Your task to perform on an android device: Open calendar and show me the third week of next month Image 0: 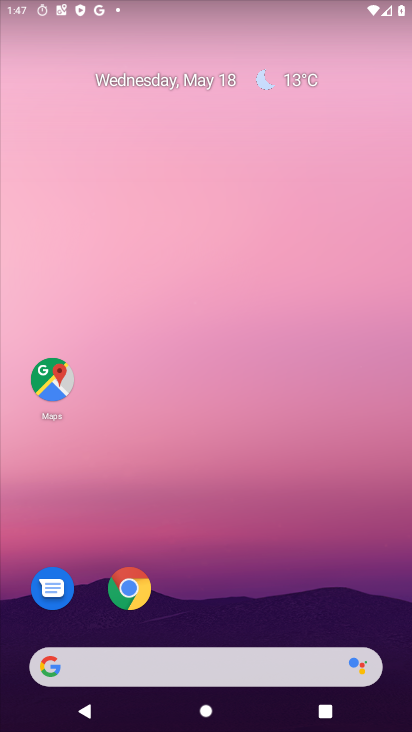
Step 0: drag from (209, 583) to (280, 144)
Your task to perform on an android device: Open calendar and show me the third week of next month Image 1: 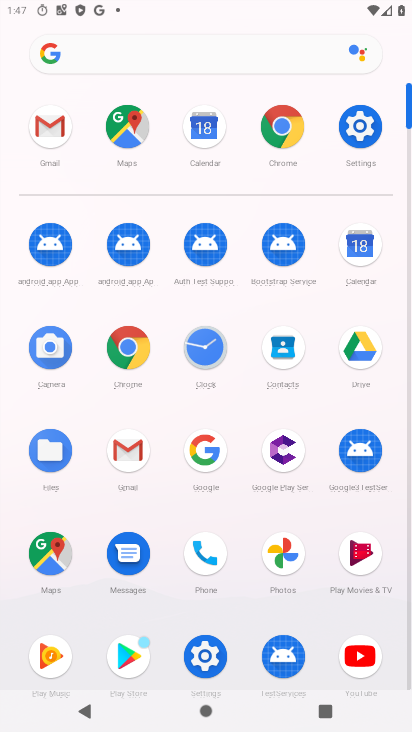
Step 1: click (365, 255)
Your task to perform on an android device: Open calendar and show me the third week of next month Image 2: 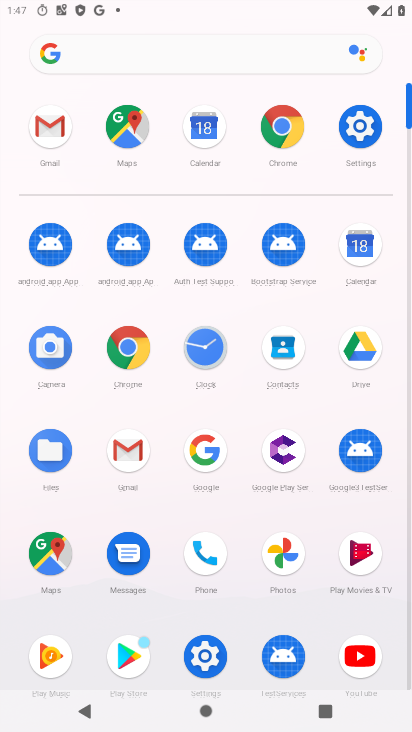
Step 2: click (365, 255)
Your task to perform on an android device: Open calendar and show me the third week of next month Image 3: 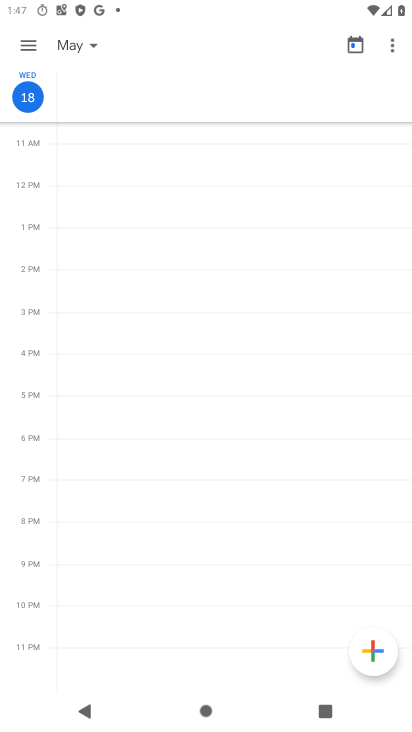
Step 3: drag from (181, 219) to (336, 661)
Your task to perform on an android device: Open calendar and show me the third week of next month Image 4: 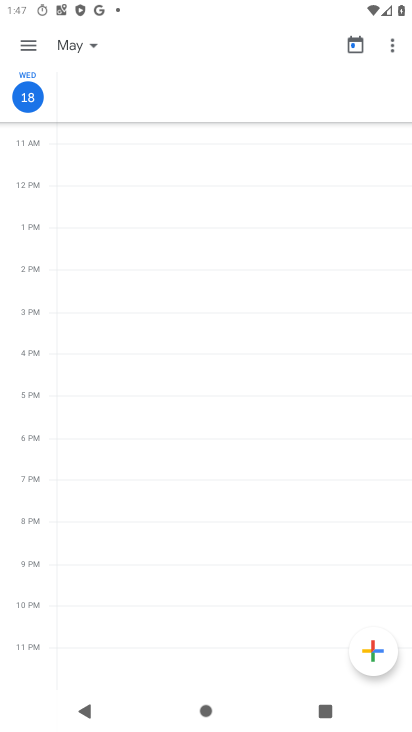
Step 4: click (73, 50)
Your task to perform on an android device: Open calendar and show me the third week of next month Image 5: 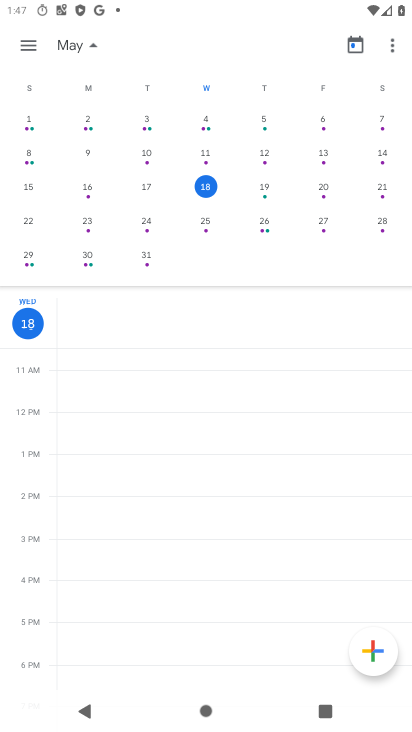
Step 5: drag from (351, 195) to (6, 182)
Your task to perform on an android device: Open calendar and show me the third week of next month Image 6: 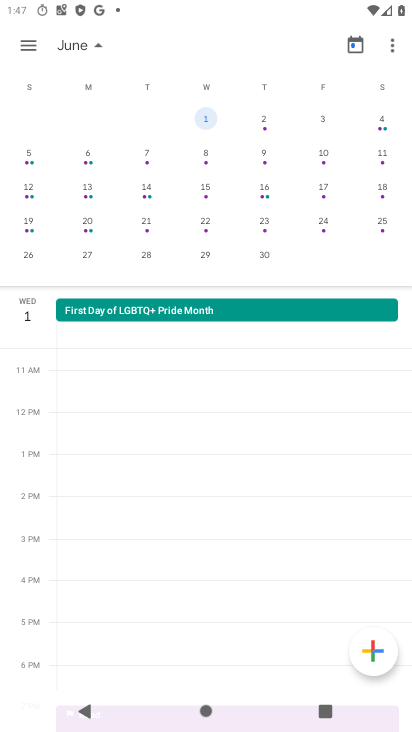
Step 6: click (205, 216)
Your task to perform on an android device: Open calendar and show me the third week of next month Image 7: 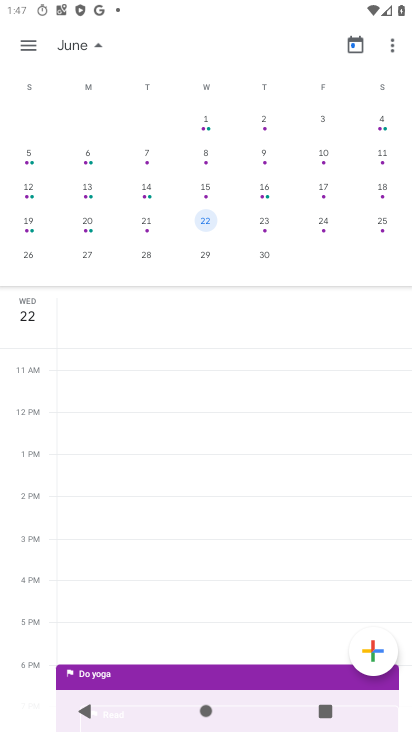
Step 7: task complete